Your task to perform on an android device: turn notification dots on Image 0: 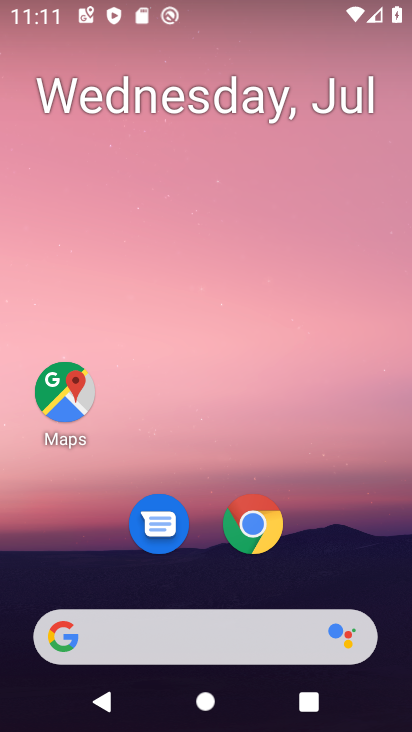
Step 0: drag from (200, 639) to (332, 35)
Your task to perform on an android device: turn notification dots on Image 1: 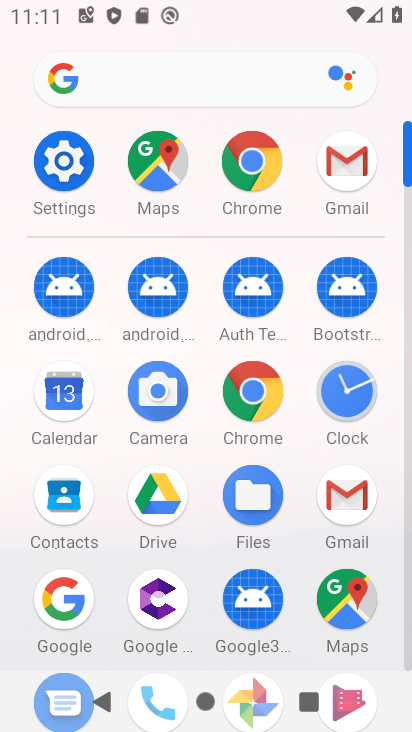
Step 1: click (64, 166)
Your task to perform on an android device: turn notification dots on Image 2: 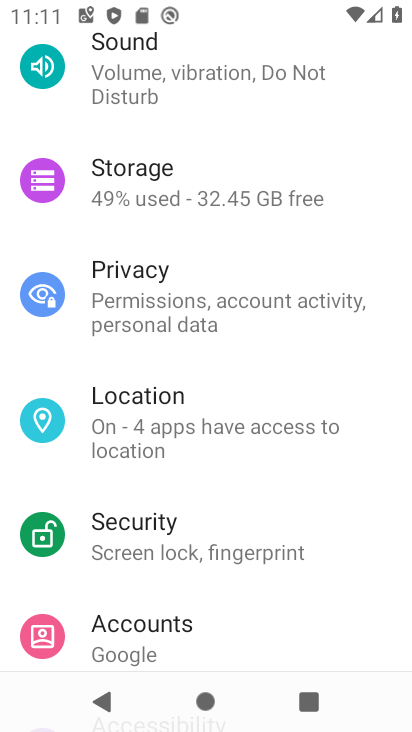
Step 2: drag from (309, 130) to (311, 569)
Your task to perform on an android device: turn notification dots on Image 3: 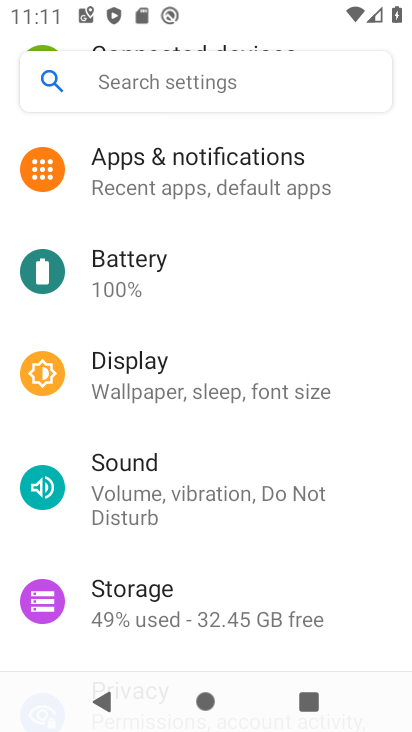
Step 3: click (236, 176)
Your task to perform on an android device: turn notification dots on Image 4: 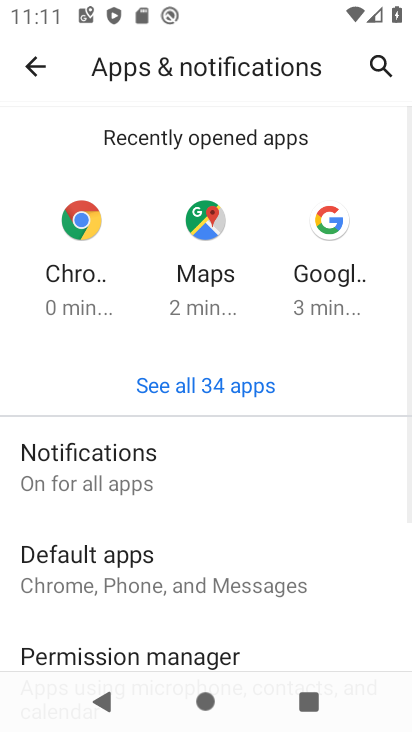
Step 4: click (115, 481)
Your task to perform on an android device: turn notification dots on Image 5: 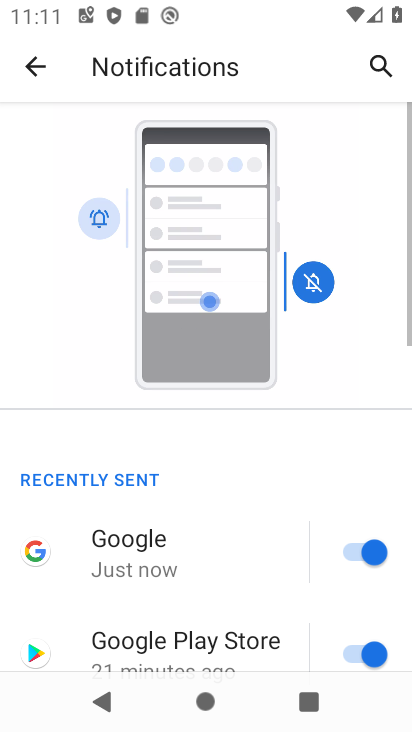
Step 5: drag from (217, 613) to (373, 183)
Your task to perform on an android device: turn notification dots on Image 6: 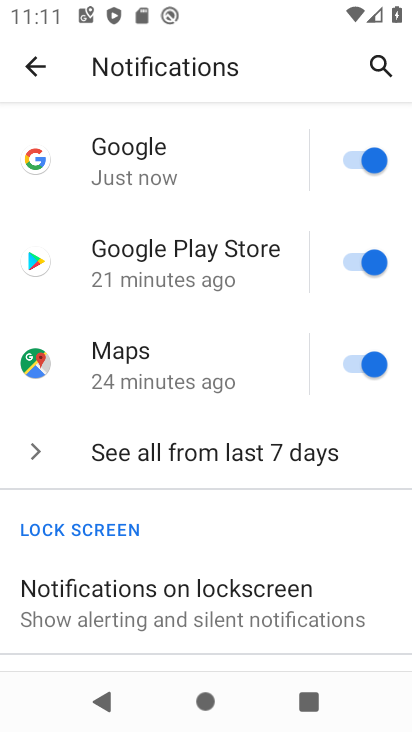
Step 6: drag from (231, 579) to (361, 105)
Your task to perform on an android device: turn notification dots on Image 7: 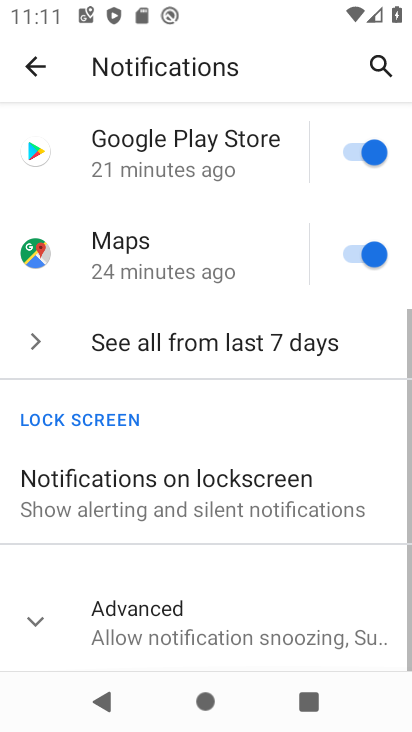
Step 7: click (188, 633)
Your task to perform on an android device: turn notification dots on Image 8: 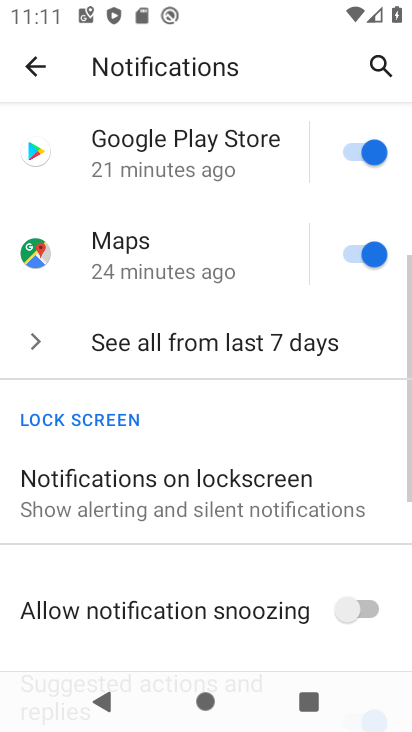
Step 8: task complete